Your task to perform on an android device: Open the map Image 0: 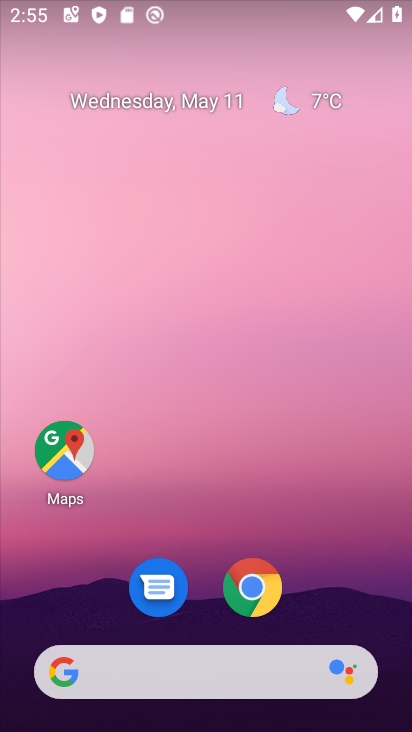
Step 0: click (78, 451)
Your task to perform on an android device: Open the map Image 1: 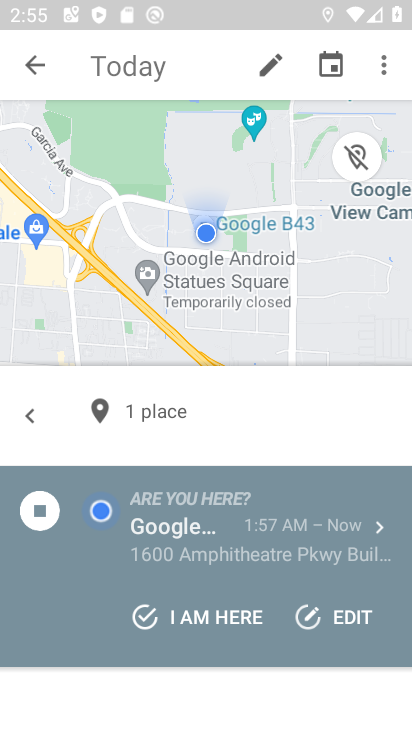
Step 1: task complete